Your task to perform on an android device: Show me productivity apps on the Play Store Image 0: 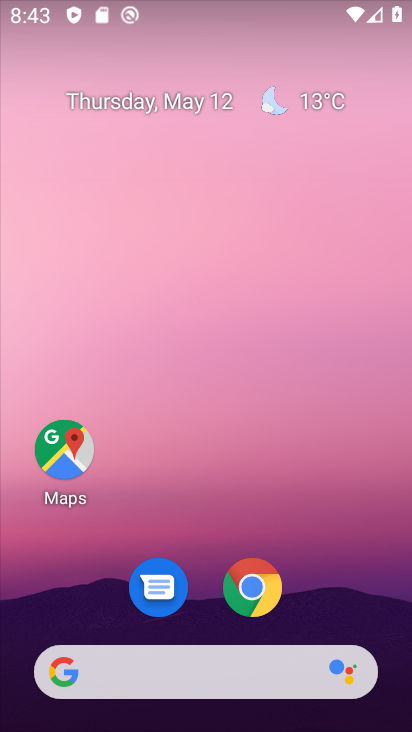
Step 0: drag from (362, 428) to (299, 88)
Your task to perform on an android device: Show me productivity apps on the Play Store Image 1: 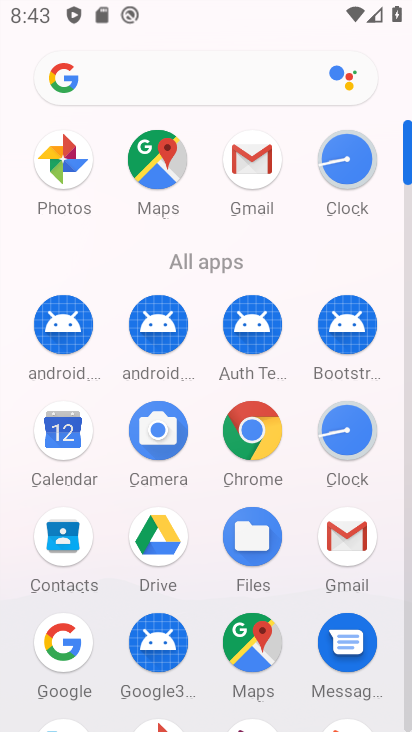
Step 1: drag from (393, 576) to (408, 320)
Your task to perform on an android device: Show me productivity apps on the Play Store Image 2: 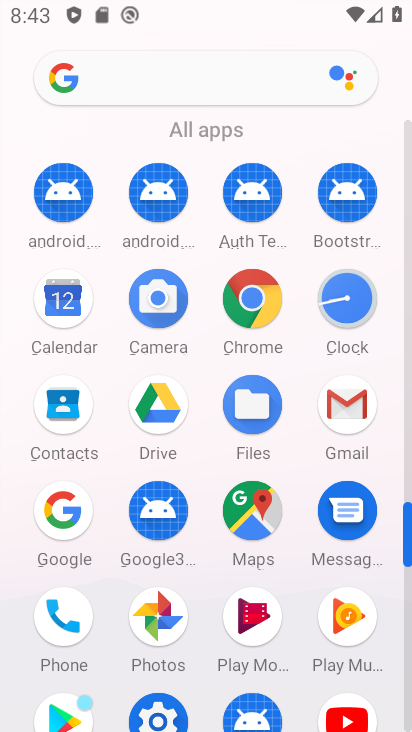
Step 2: drag from (392, 588) to (407, 256)
Your task to perform on an android device: Show me productivity apps on the Play Store Image 3: 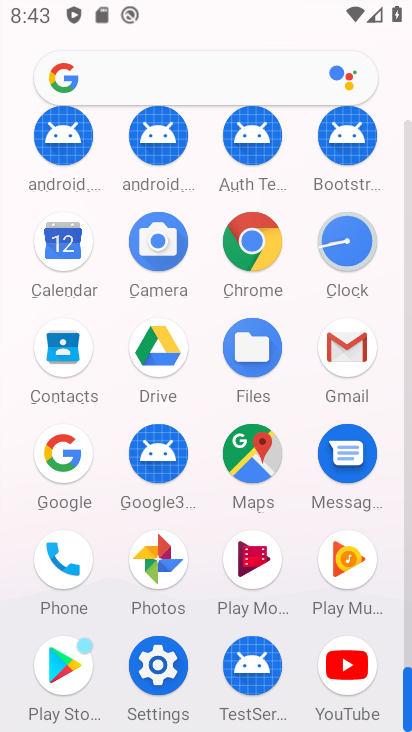
Step 3: drag from (388, 569) to (411, 367)
Your task to perform on an android device: Show me productivity apps on the Play Store Image 4: 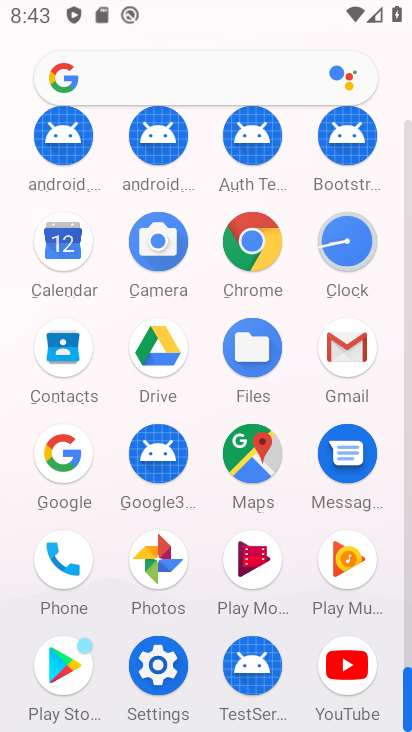
Step 4: drag from (400, 370) to (411, 477)
Your task to perform on an android device: Show me productivity apps on the Play Store Image 5: 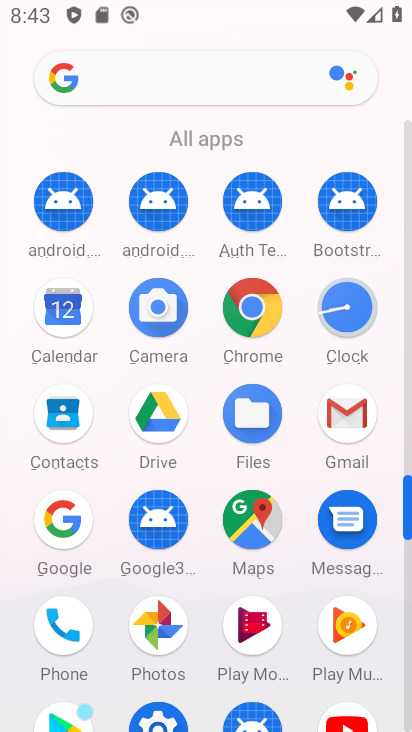
Step 5: drag from (402, 349) to (409, 448)
Your task to perform on an android device: Show me productivity apps on the Play Store Image 6: 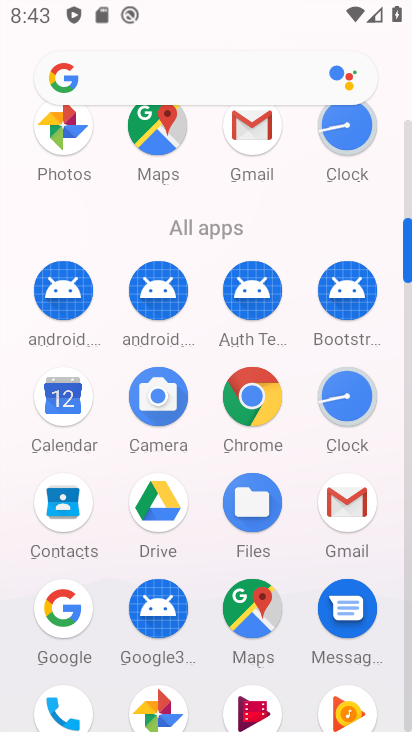
Step 6: drag from (387, 335) to (408, 535)
Your task to perform on an android device: Show me productivity apps on the Play Store Image 7: 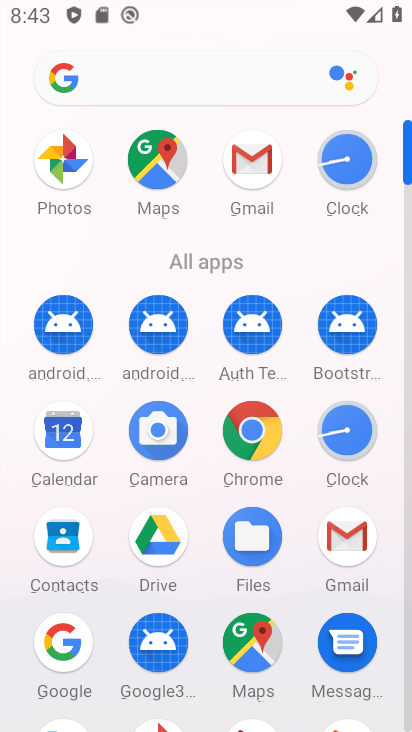
Step 7: drag from (382, 585) to (409, 232)
Your task to perform on an android device: Show me productivity apps on the Play Store Image 8: 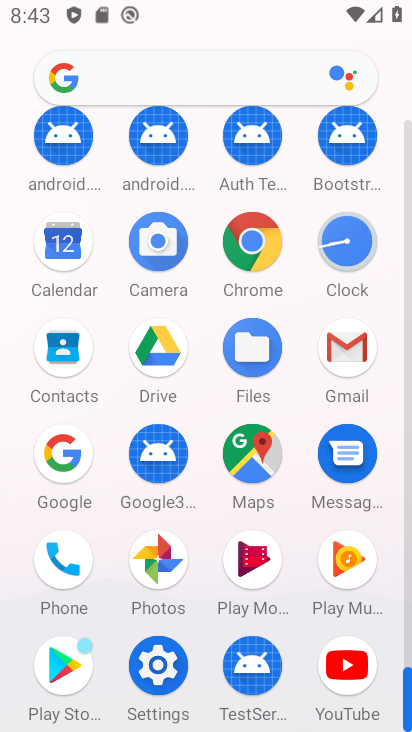
Step 8: drag from (389, 573) to (386, 260)
Your task to perform on an android device: Show me productivity apps on the Play Store Image 9: 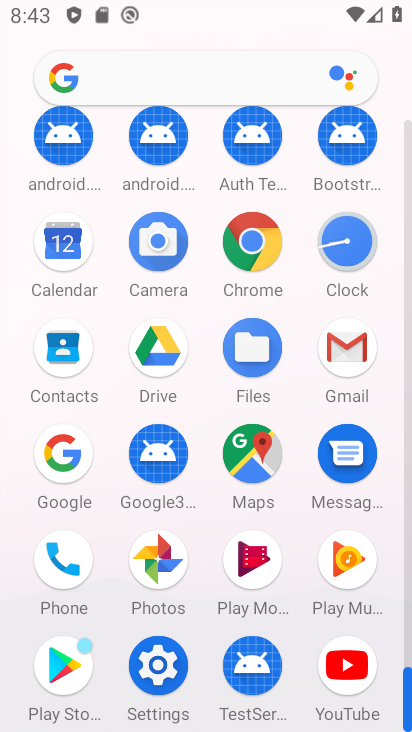
Step 9: click (59, 684)
Your task to perform on an android device: Show me productivity apps on the Play Store Image 10: 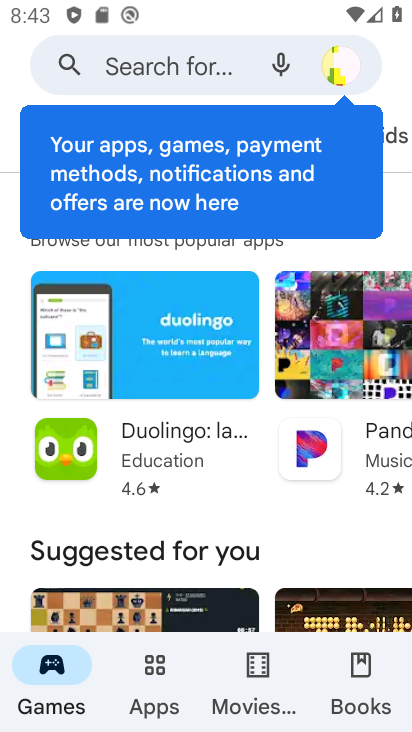
Step 10: click (170, 72)
Your task to perform on an android device: Show me productivity apps on the Play Store Image 11: 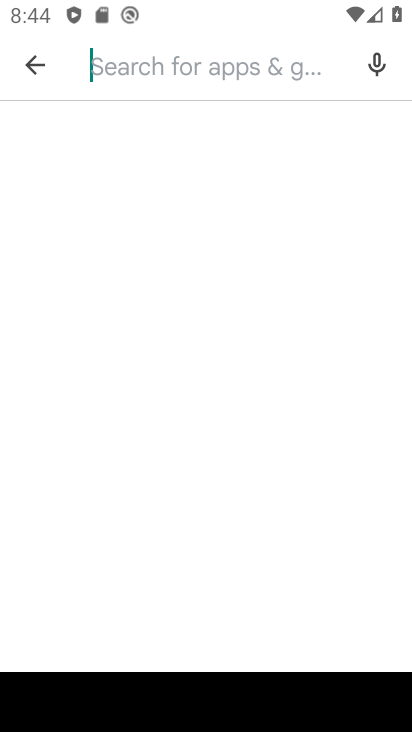
Step 11: type "productivity apps"
Your task to perform on an android device: Show me productivity apps on the Play Store Image 12: 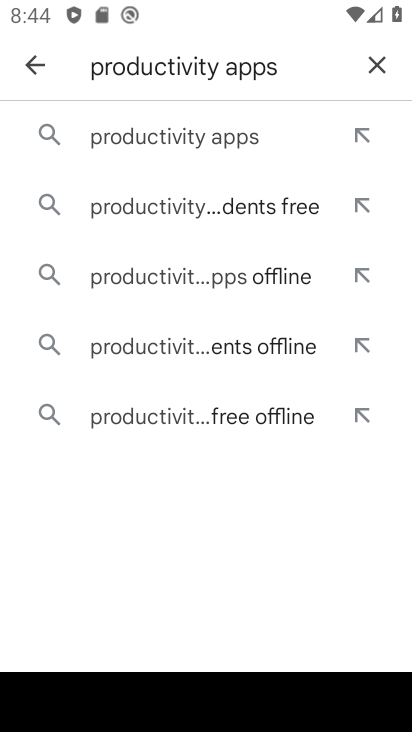
Step 12: click (192, 138)
Your task to perform on an android device: Show me productivity apps on the Play Store Image 13: 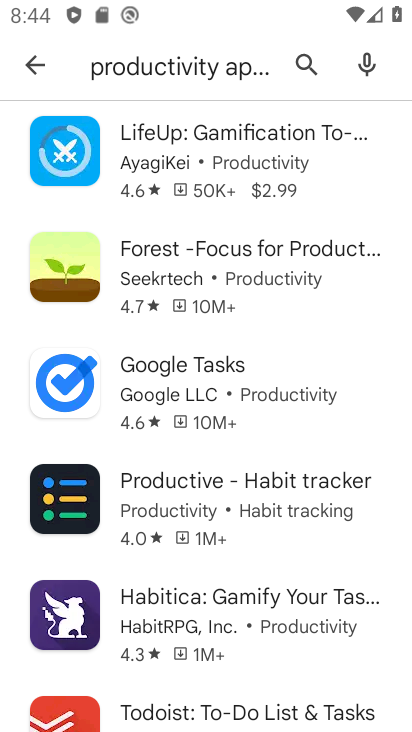
Step 13: task complete